Your task to perform on an android device: What is the news today? Image 0: 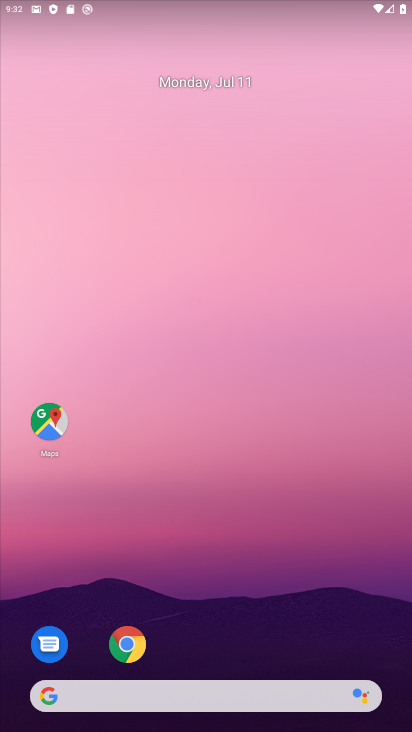
Step 0: drag from (227, 604) to (282, 167)
Your task to perform on an android device: What is the news today? Image 1: 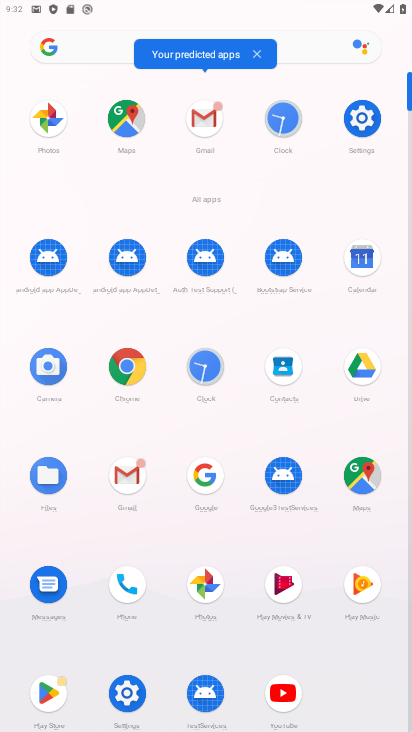
Step 1: click (208, 478)
Your task to perform on an android device: What is the news today? Image 2: 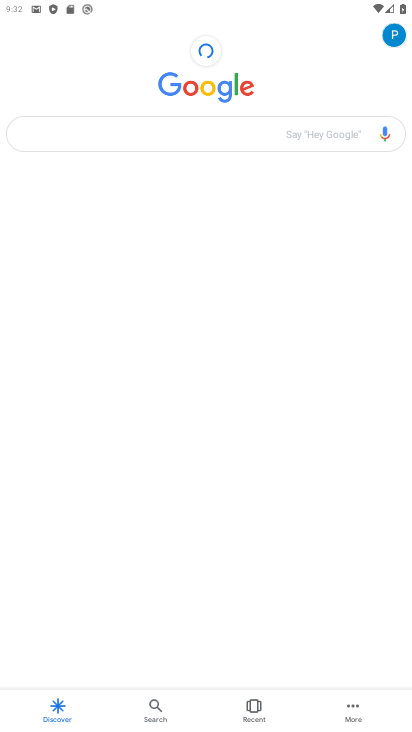
Step 2: click (149, 136)
Your task to perform on an android device: What is the news today? Image 3: 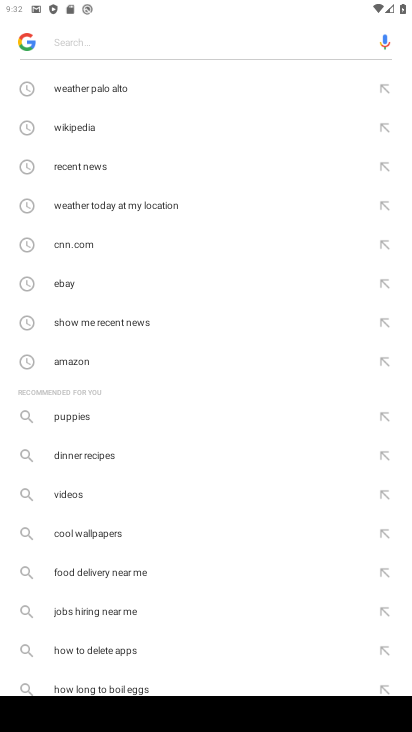
Step 3: type "news today"
Your task to perform on an android device: What is the news today? Image 4: 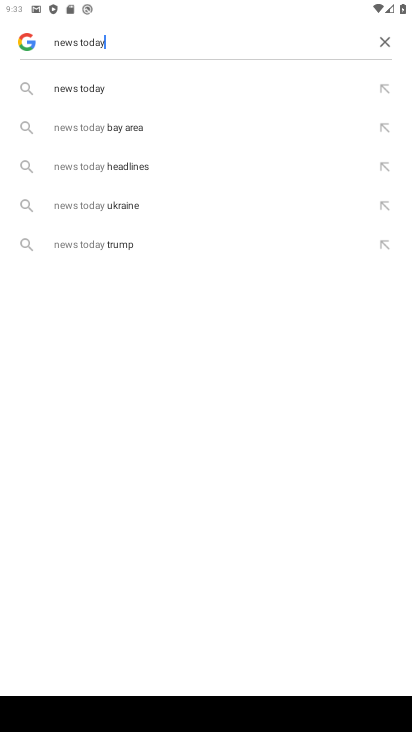
Step 4: click (127, 88)
Your task to perform on an android device: What is the news today? Image 5: 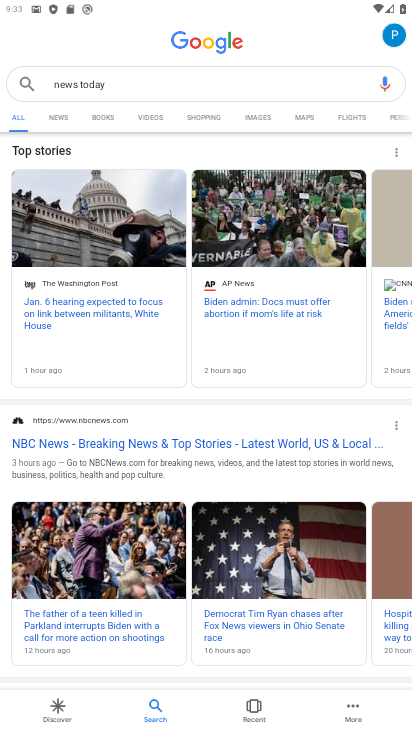
Step 5: task complete